Your task to perform on an android device: Open settings Image 0: 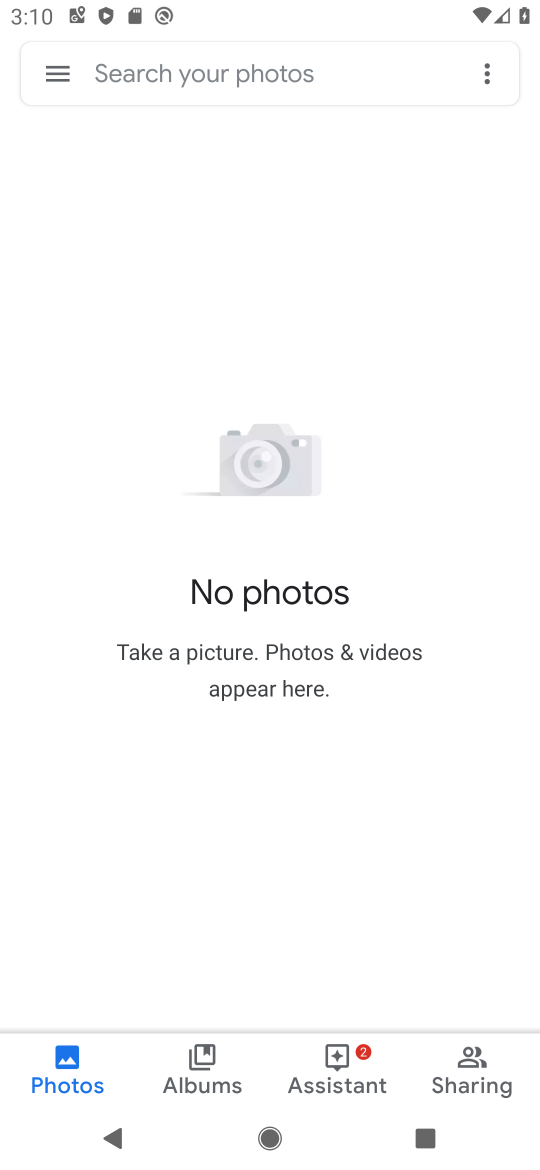
Step 0: press home button
Your task to perform on an android device: Open settings Image 1: 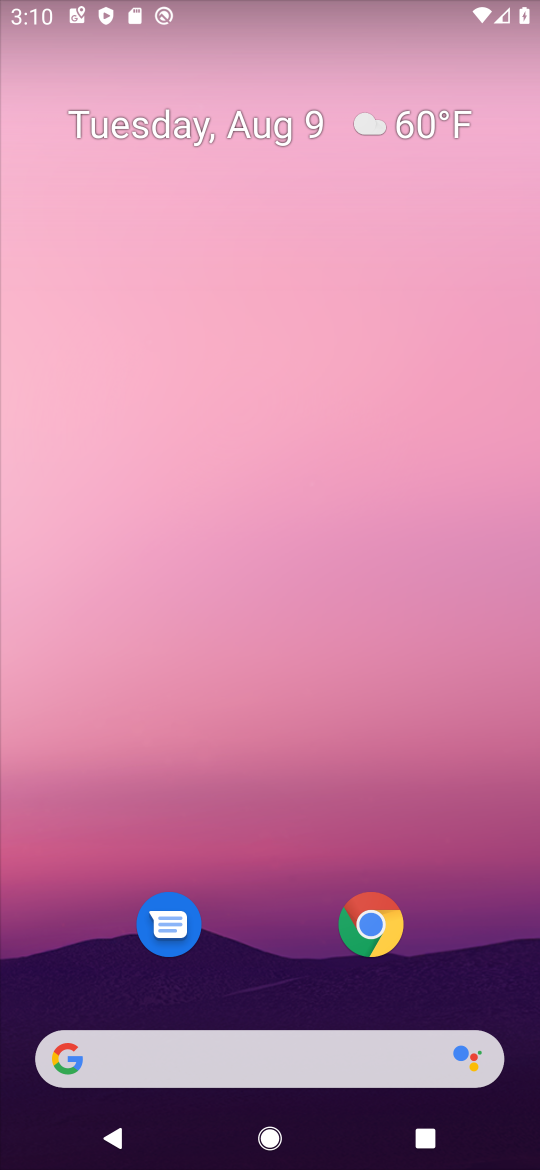
Step 1: drag from (270, 910) to (382, 9)
Your task to perform on an android device: Open settings Image 2: 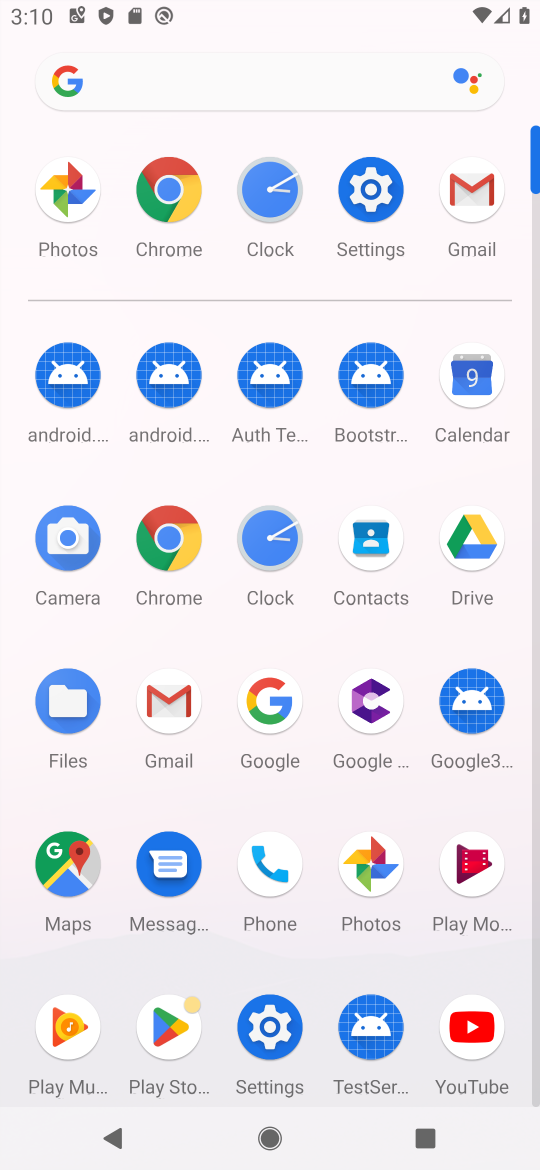
Step 2: click (376, 203)
Your task to perform on an android device: Open settings Image 3: 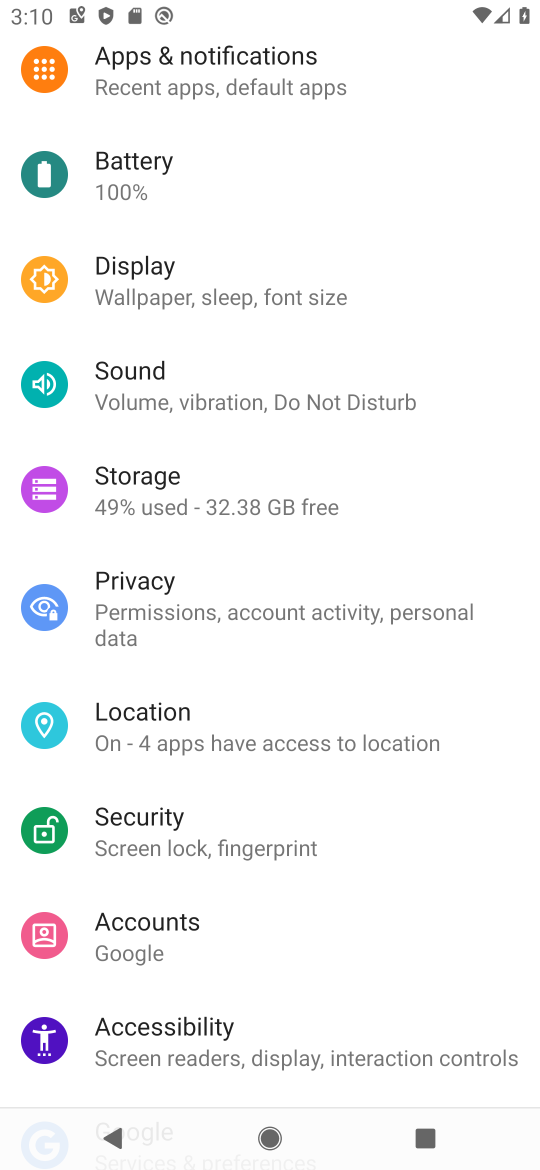
Step 3: task complete